Your task to perform on an android device: change the upload size in google photos Image 0: 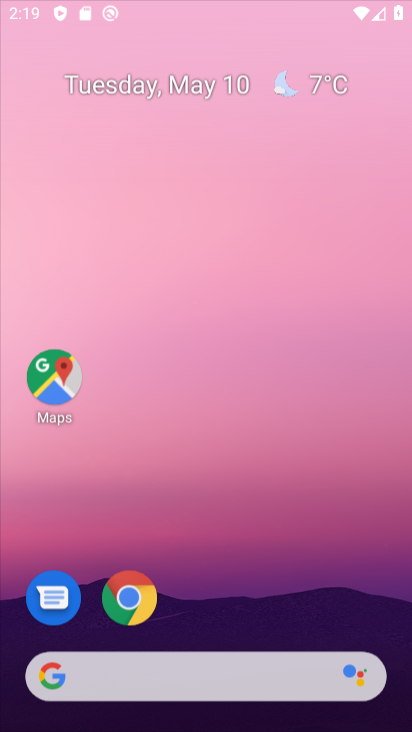
Step 0: click (215, 138)
Your task to perform on an android device: change the upload size in google photos Image 1: 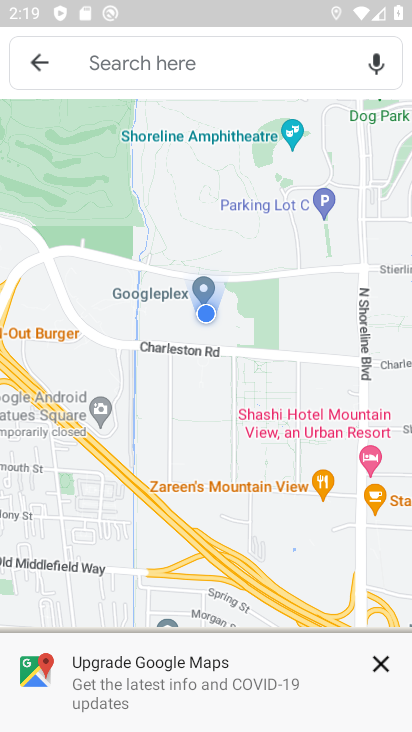
Step 1: press home button
Your task to perform on an android device: change the upload size in google photos Image 2: 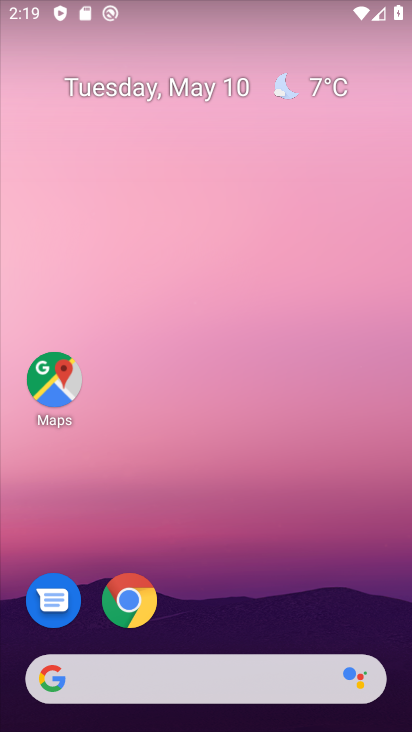
Step 2: drag from (254, 644) to (266, 139)
Your task to perform on an android device: change the upload size in google photos Image 3: 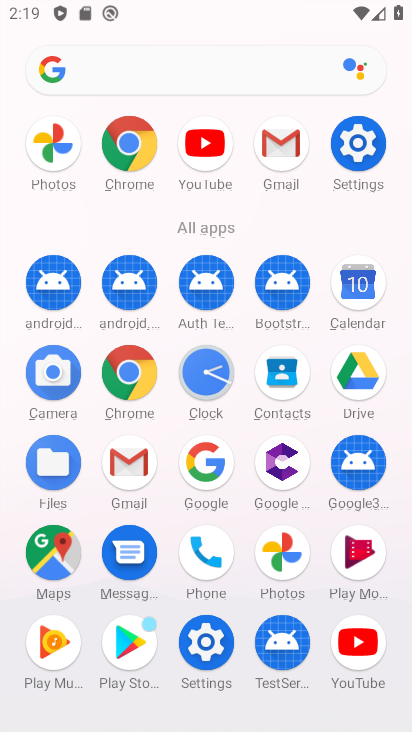
Step 3: click (297, 573)
Your task to perform on an android device: change the upload size in google photos Image 4: 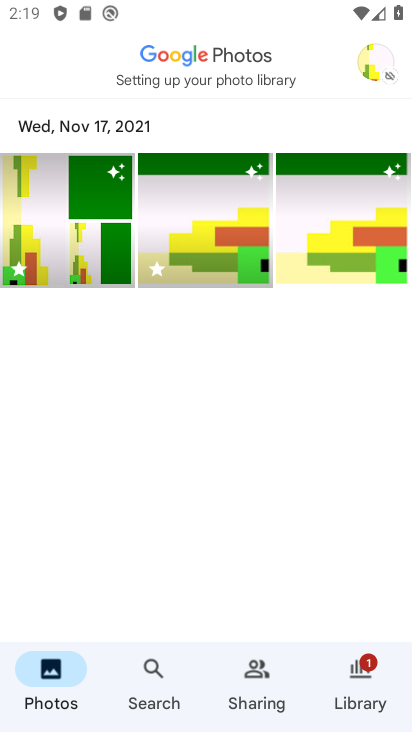
Step 4: click (384, 71)
Your task to perform on an android device: change the upload size in google photos Image 5: 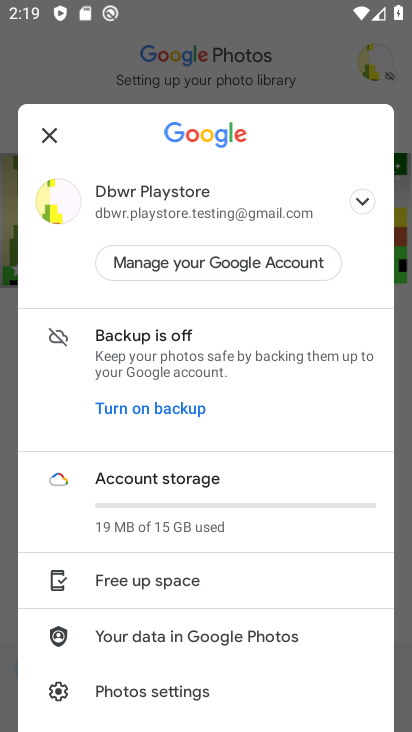
Step 5: drag from (164, 681) to (184, 231)
Your task to perform on an android device: change the upload size in google photos Image 6: 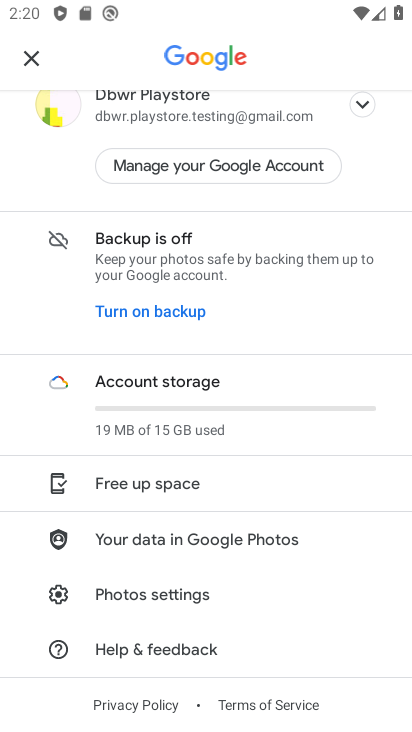
Step 6: click (170, 591)
Your task to perform on an android device: change the upload size in google photos Image 7: 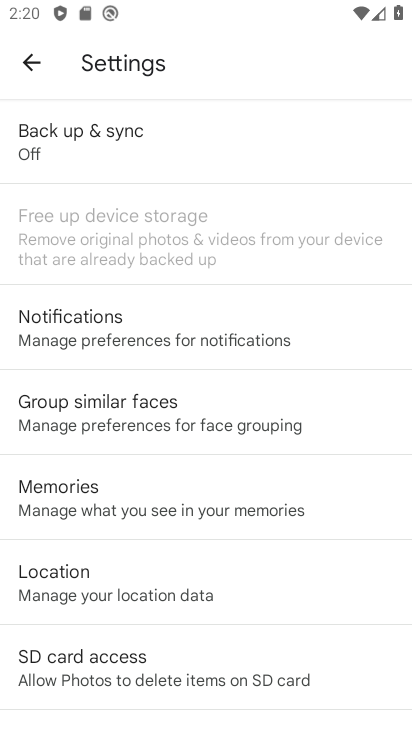
Step 7: click (110, 148)
Your task to perform on an android device: change the upload size in google photos Image 8: 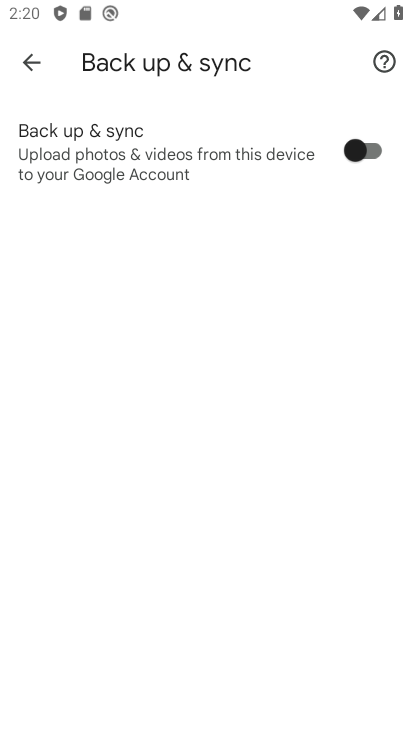
Step 8: click (356, 147)
Your task to perform on an android device: change the upload size in google photos Image 9: 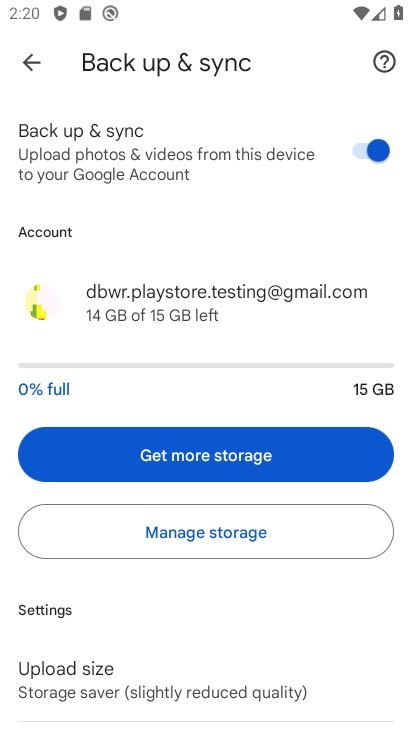
Step 9: click (158, 705)
Your task to perform on an android device: change the upload size in google photos Image 10: 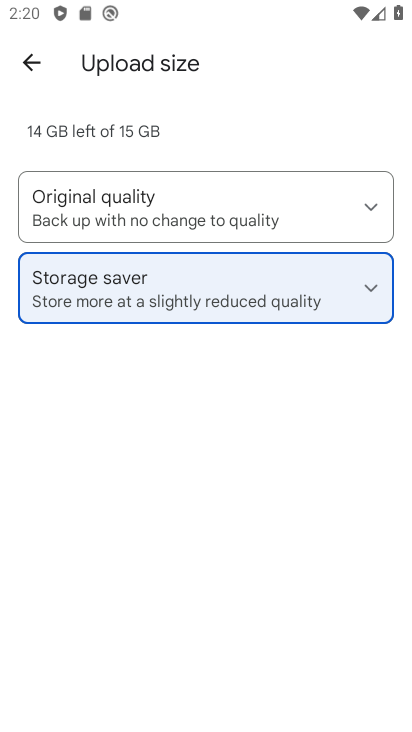
Step 10: click (327, 214)
Your task to perform on an android device: change the upload size in google photos Image 11: 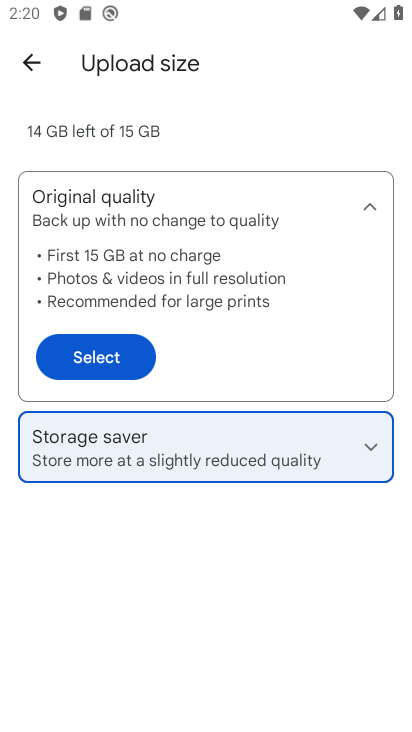
Step 11: click (85, 367)
Your task to perform on an android device: change the upload size in google photos Image 12: 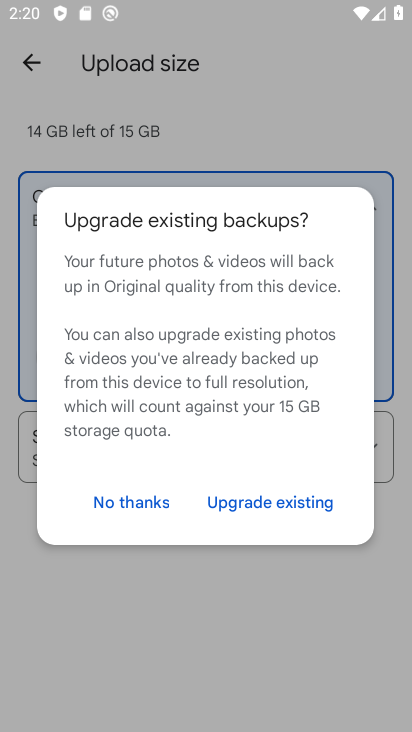
Step 12: click (144, 504)
Your task to perform on an android device: change the upload size in google photos Image 13: 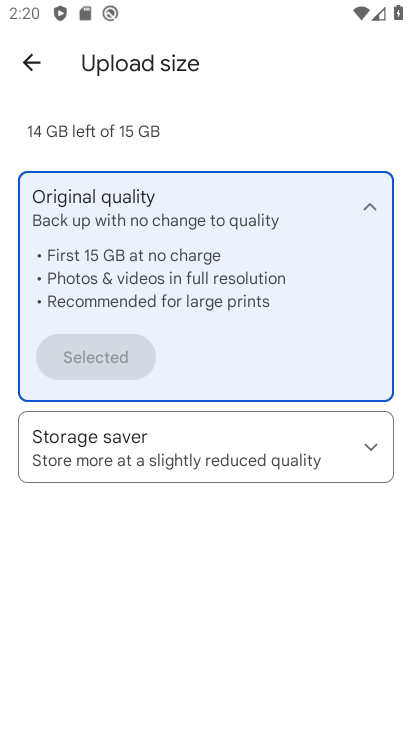
Step 13: task complete